Your task to perform on an android device: Add energizer triple a to the cart on ebay.com Image 0: 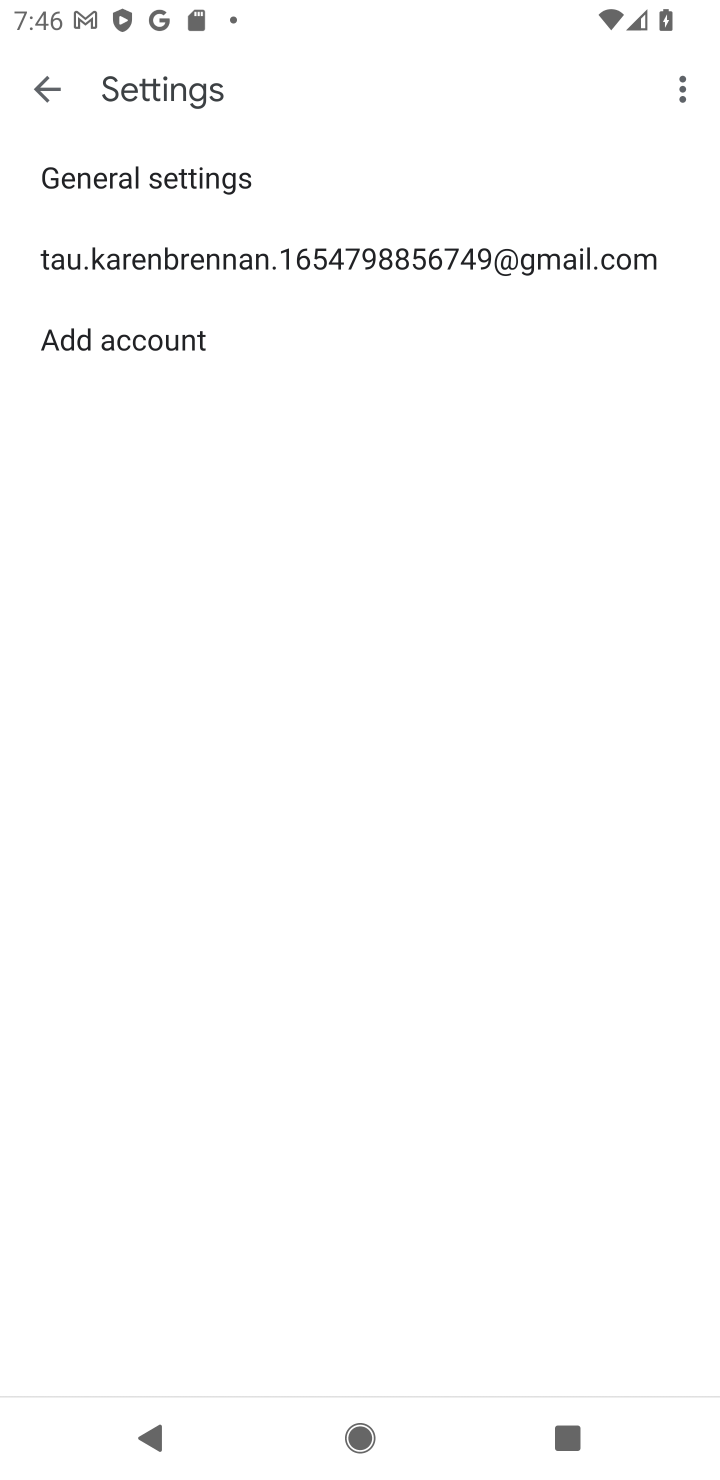
Step 0: press home button
Your task to perform on an android device: Add energizer triple a to the cart on ebay.com Image 1: 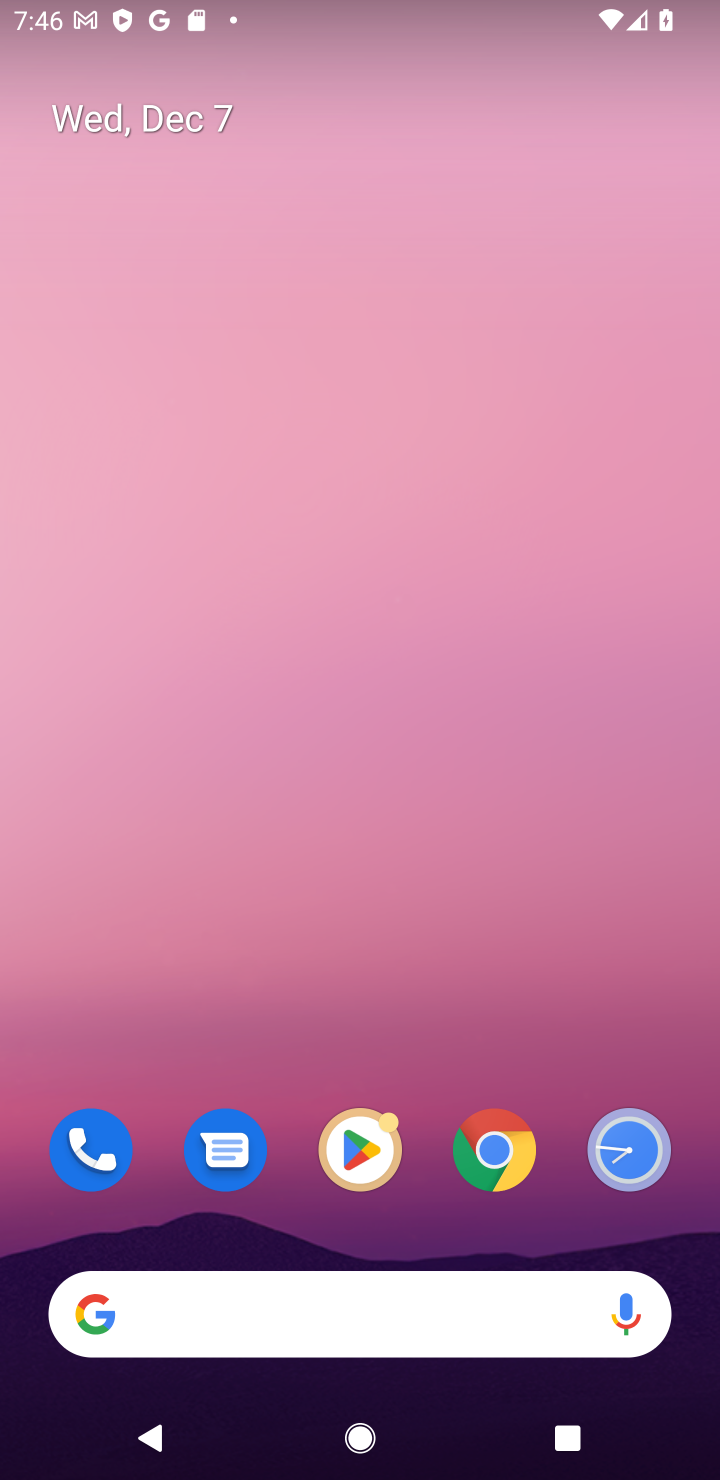
Step 1: click (500, 1169)
Your task to perform on an android device: Add energizer triple a to the cart on ebay.com Image 2: 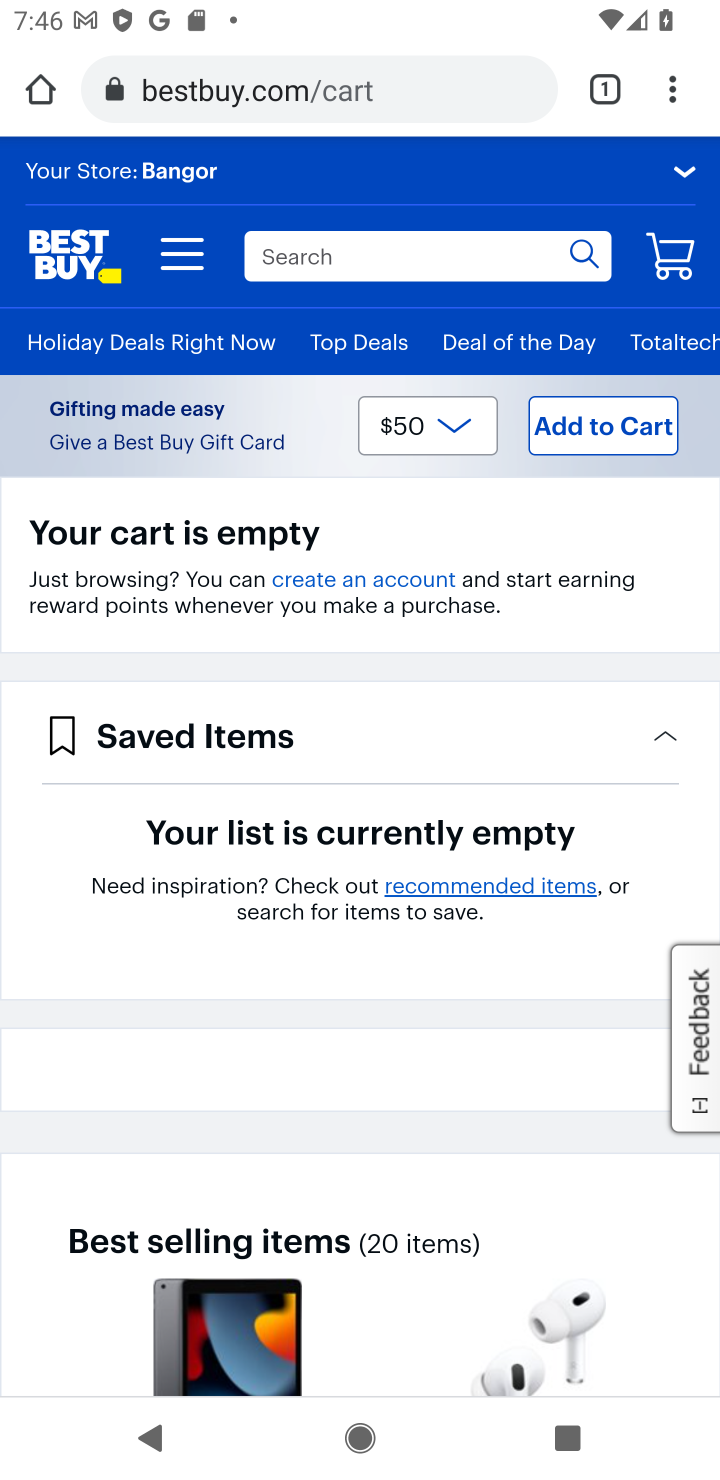
Step 2: click (255, 106)
Your task to perform on an android device: Add energizer triple a to the cart on ebay.com Image 3: 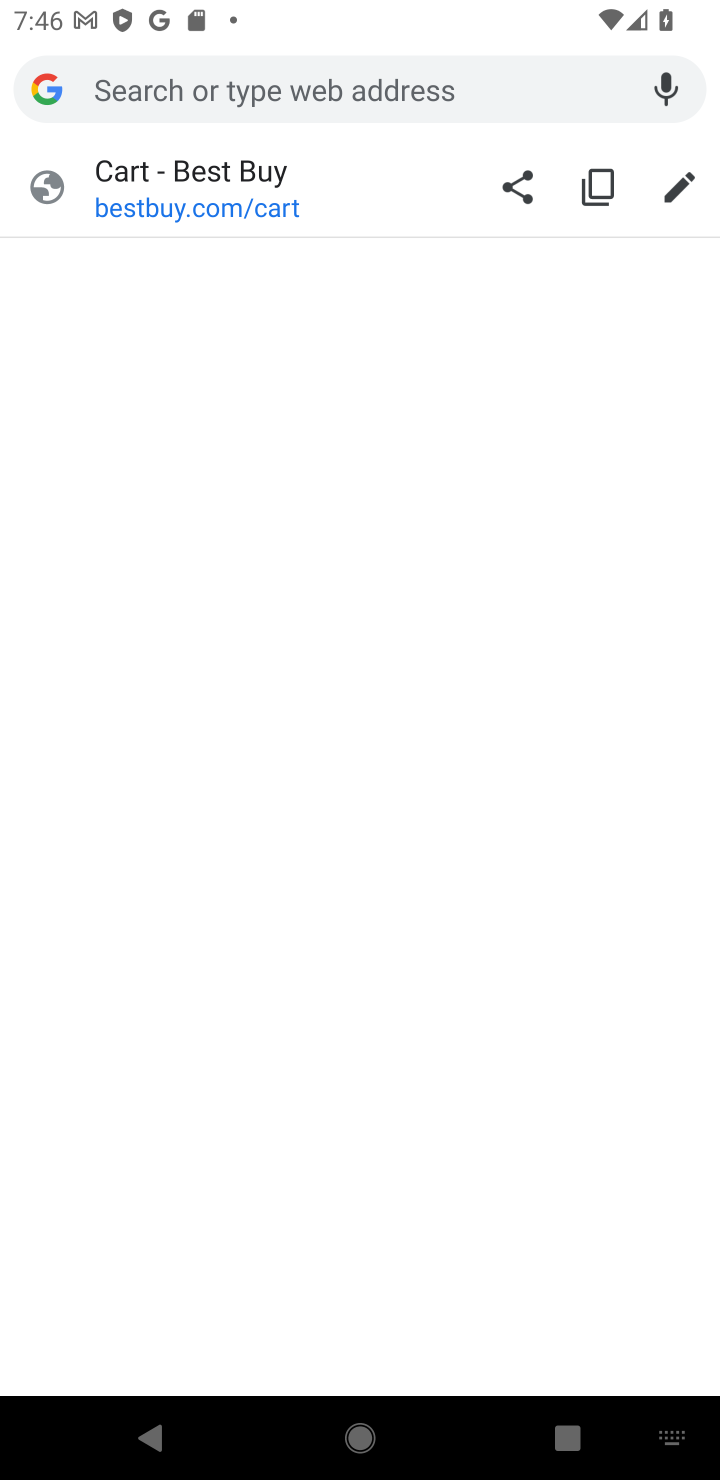
Step 3: type "ebay.com"
Your task to perform on an android device: Add energizer triple a to the cart on ebay.com Image 4: 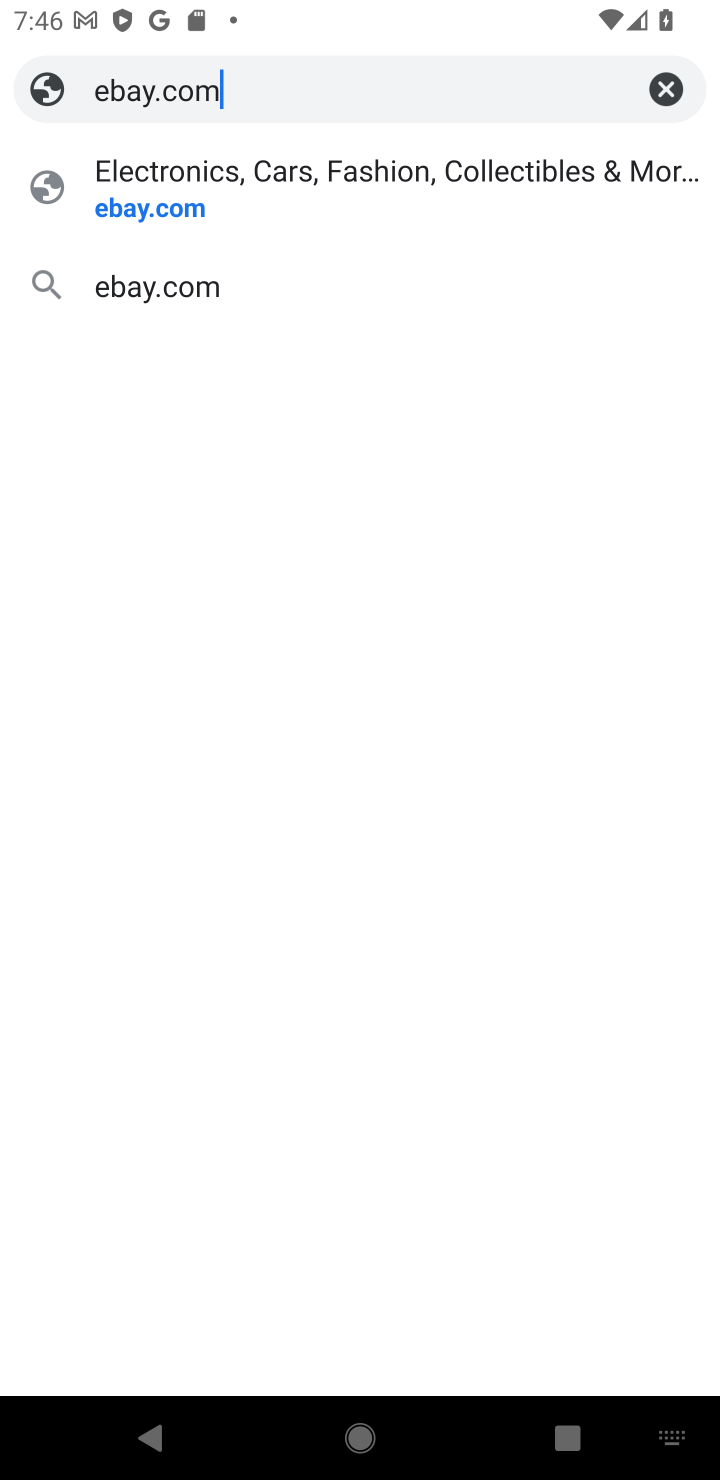
Step 4: press enter
Your task to perform on an android device: Add energizer triple a to the cart on ebay.com Image 5: 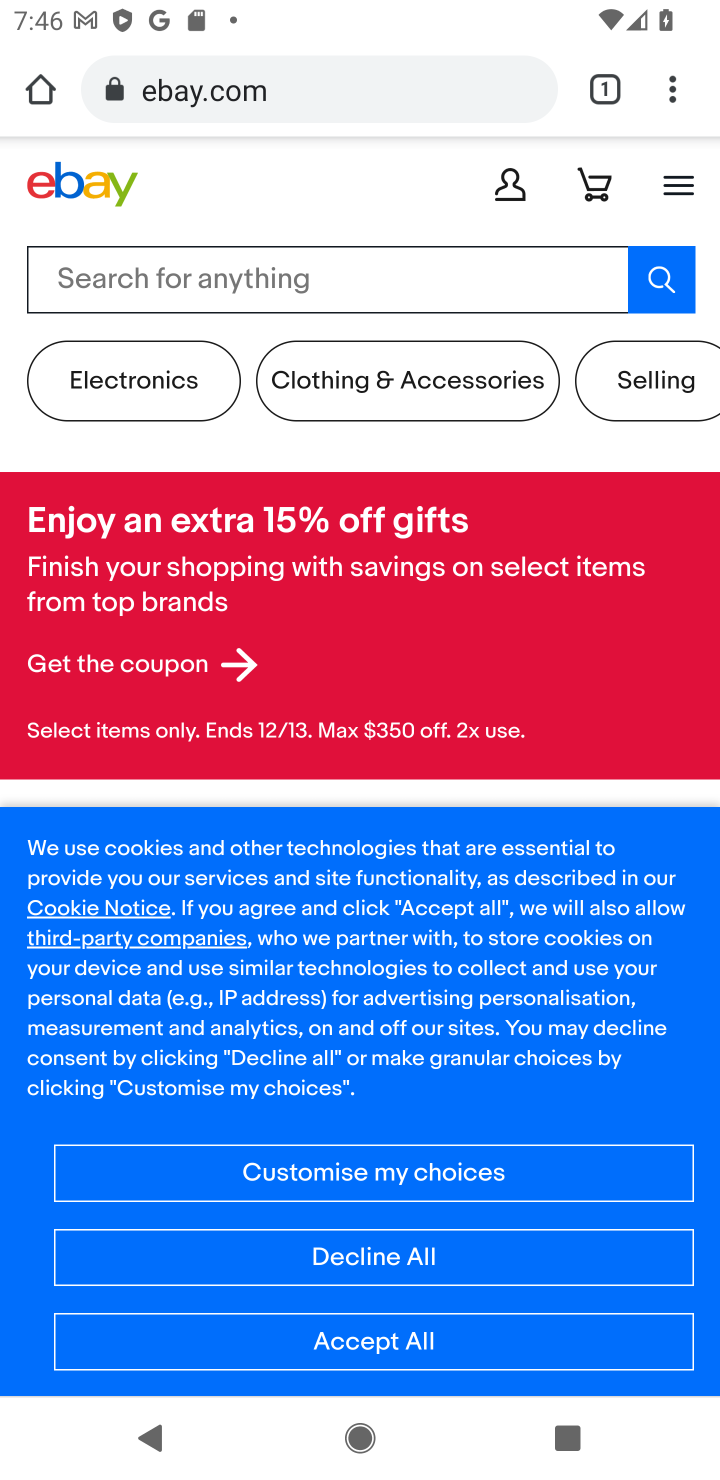
Step 5: click (404, 1348)
Your task to perform on an android device: Add energizer triple a to the cart on ebay.com Image 6: 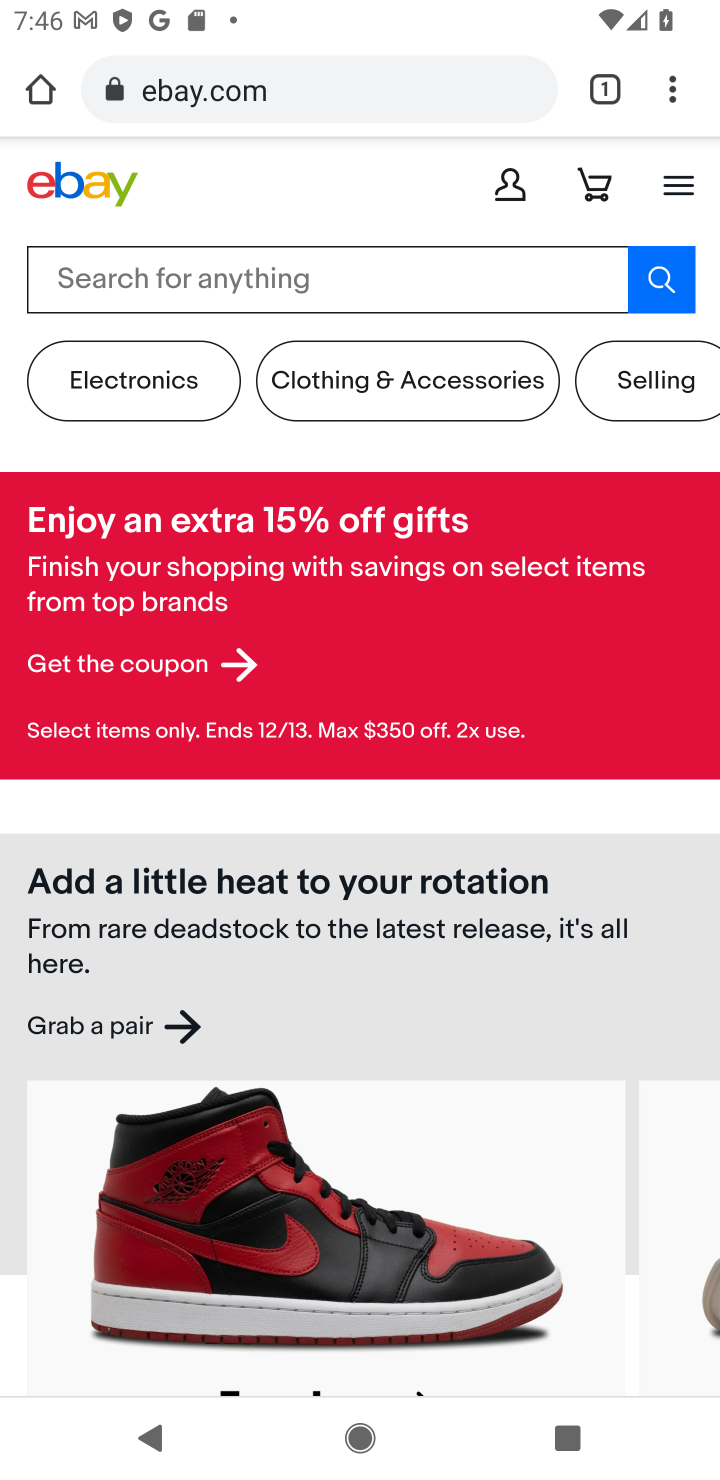
Step 6: click (279, 317)
Your task to perform on an android device: Add energizer triple a to the cart on ebay.com Image 7: 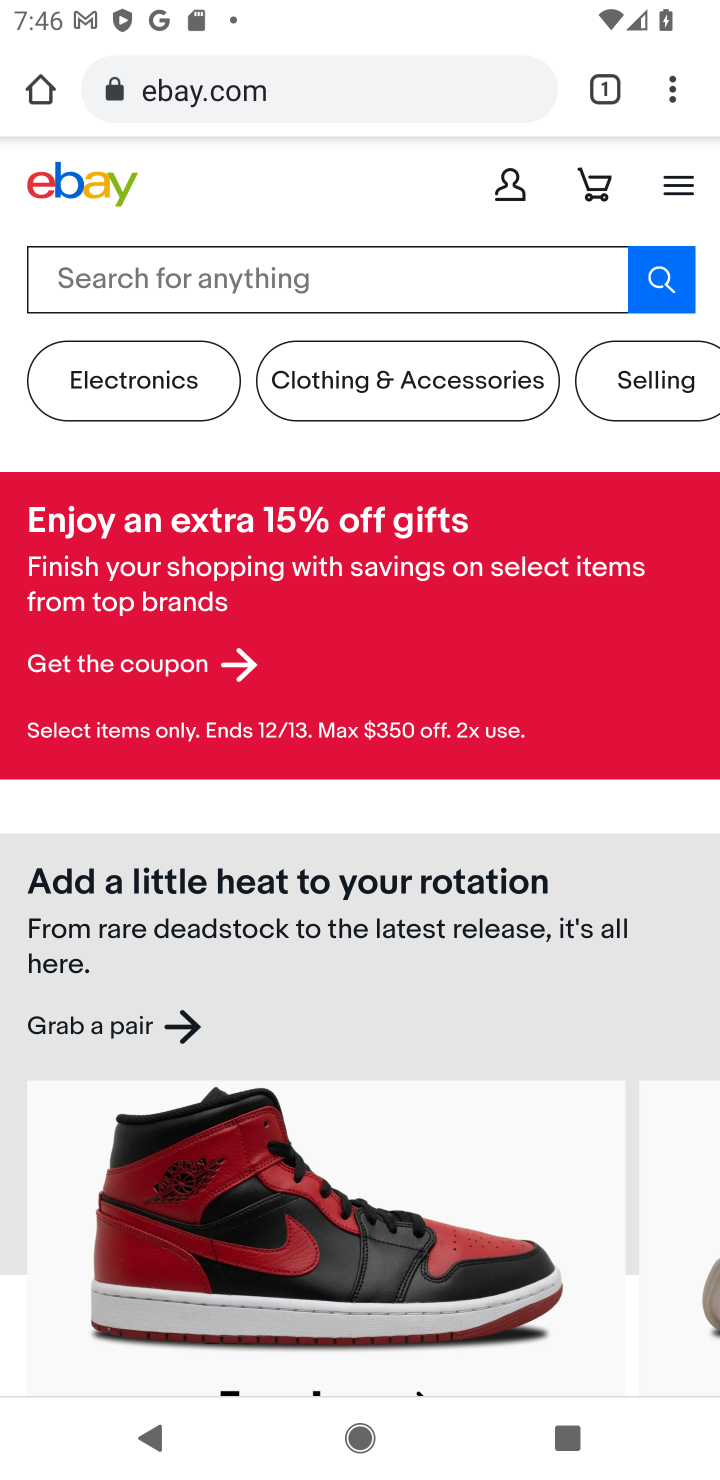
Step 7: click (269, 263)
Your task to perform on an android device: Add energizer triple a to the cart on ebay.com Image 8: 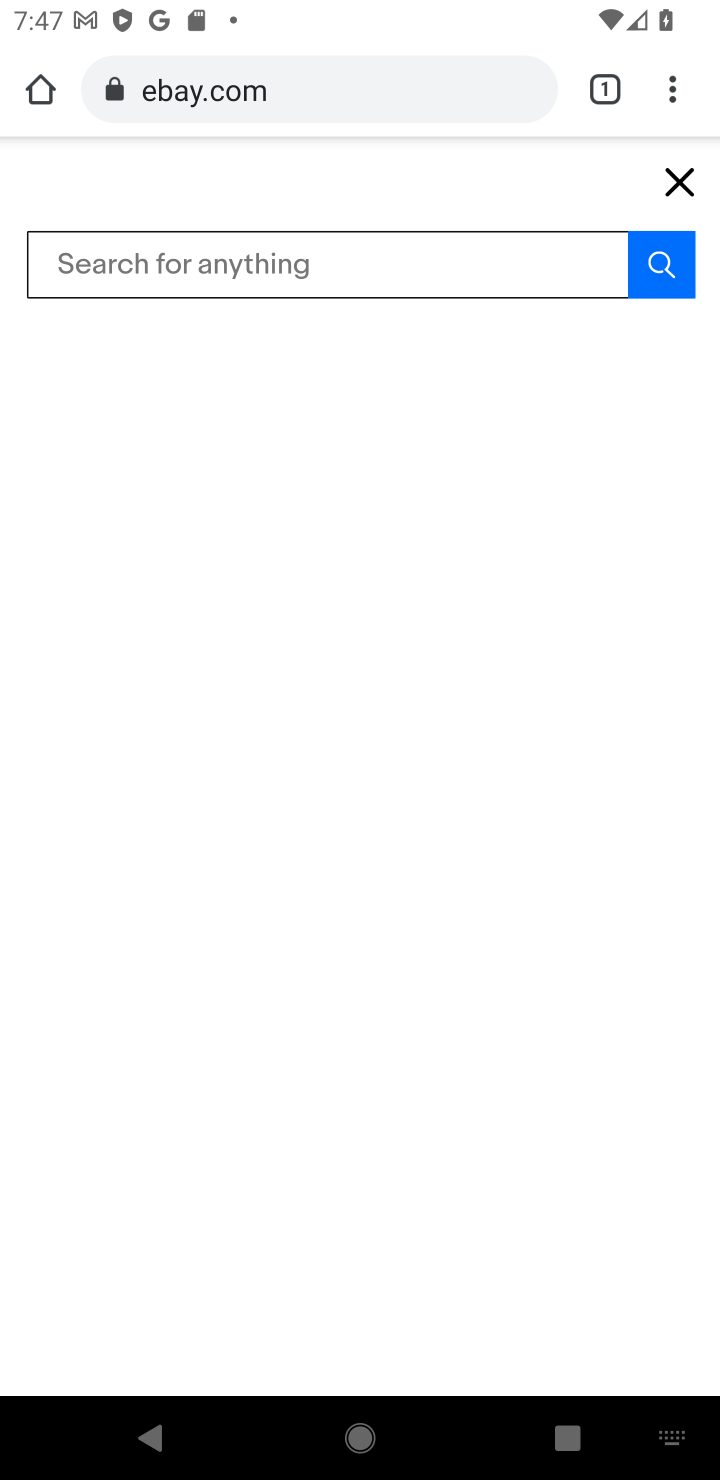
Step 8: type "energizer triple a"
Your task to perform on an android device: Add energizer triple a to the cart on ebay.com Image 9: 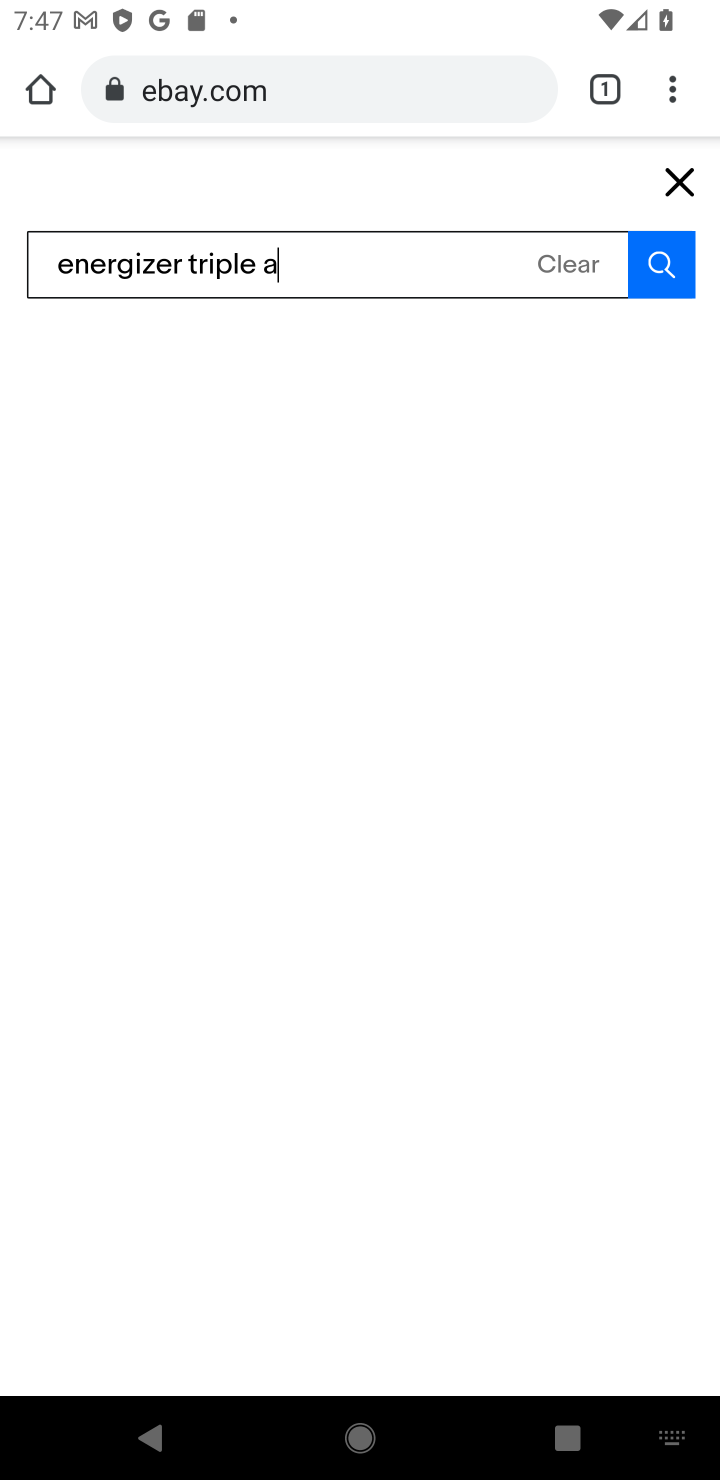
Step 9: press enter
Your task to perform on an android device: Add energizer triple a to the cart on ebay.com Image 10: 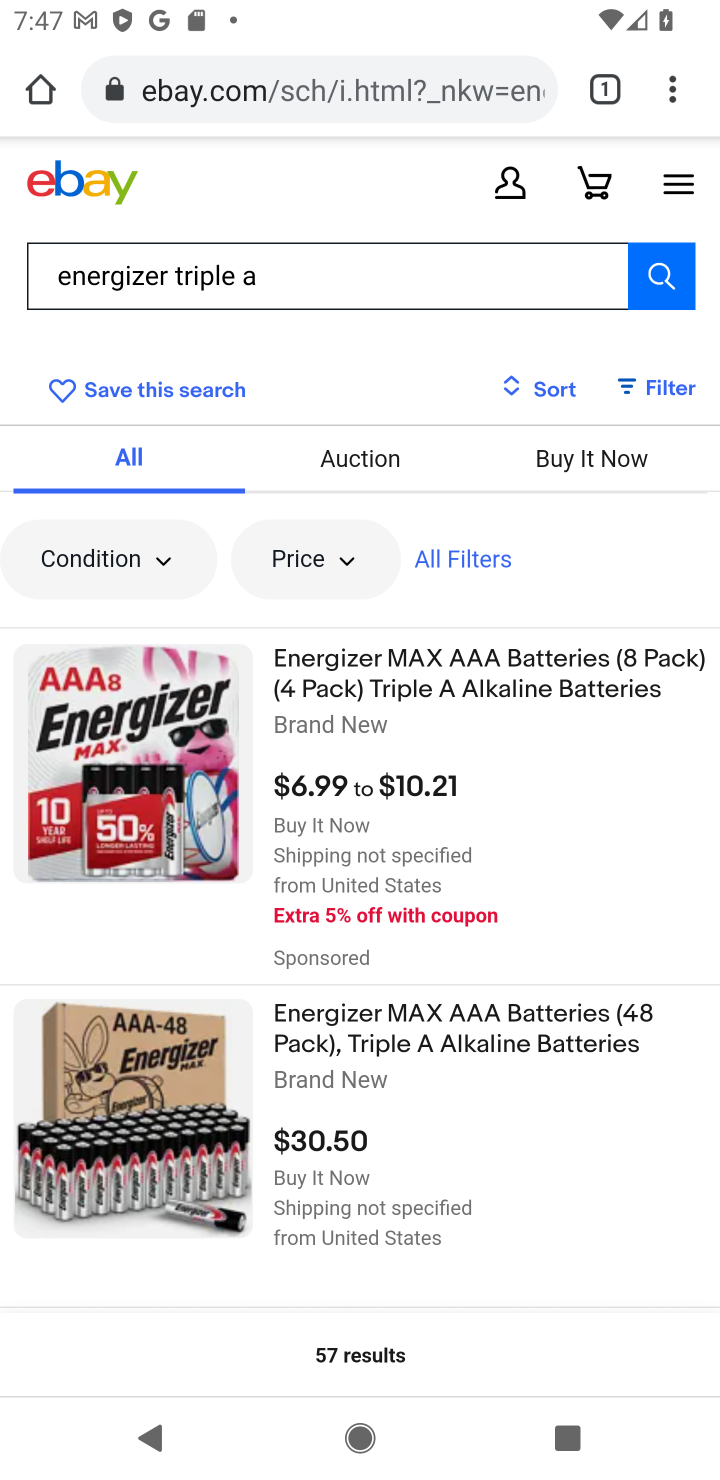
Step 10: click (268, 730)
Your task to perform on an android device: Add energizer triple a to the cart on ebay.com Image 11: 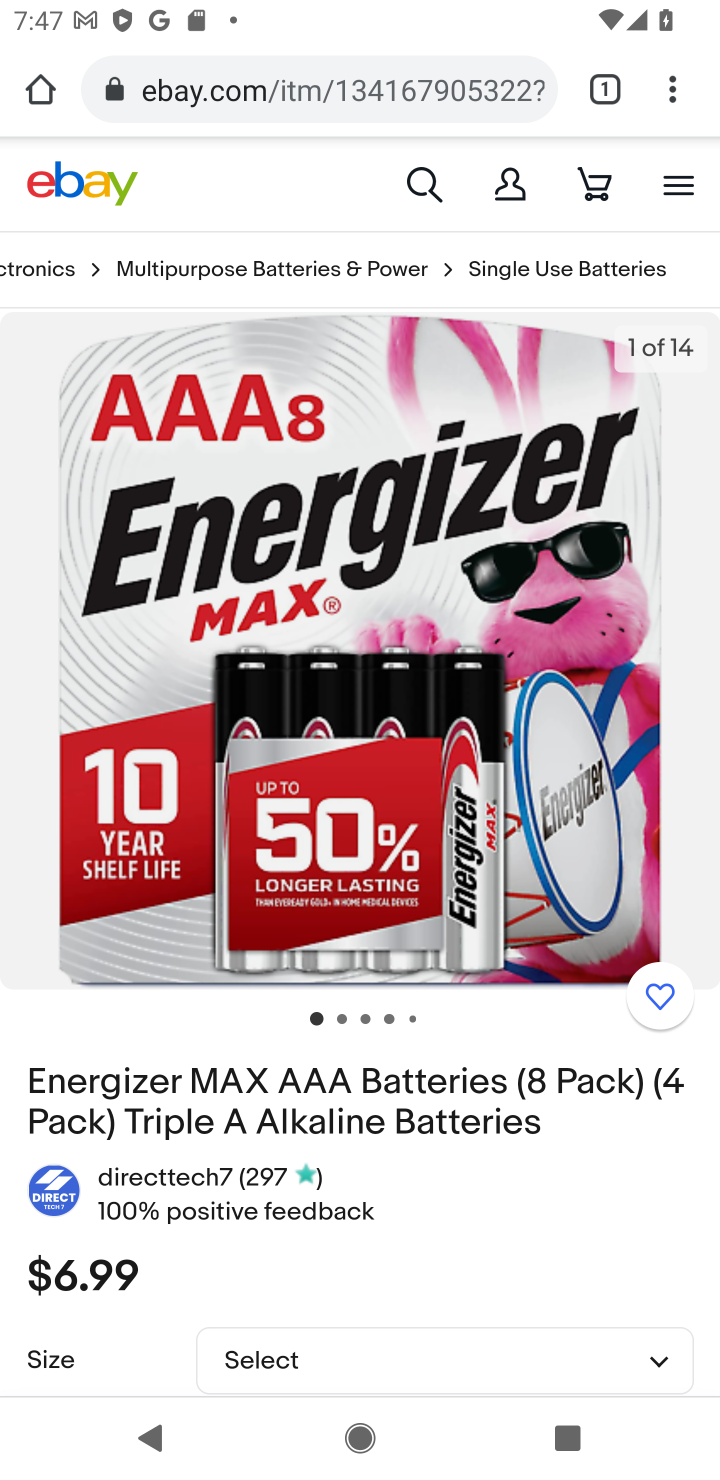
Step 11: drag from (418, 1112) to (482, 625)
Your task to perform on an android device: Add energizer triple a to the cart on ebay.com Image 12: 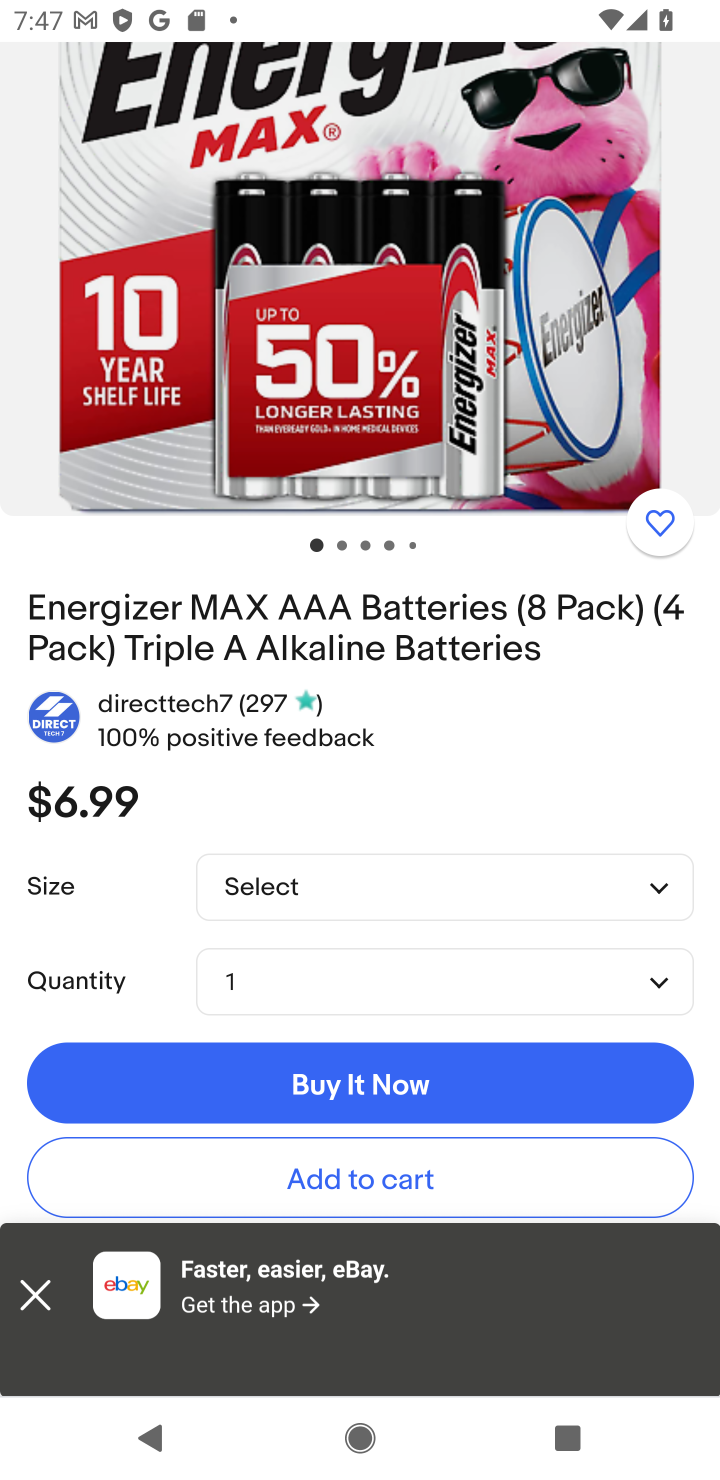
Step 12: click (446, 872)
Your task to perform on an android device: Add energizer triple a to the cart on ebay.com Image 13: 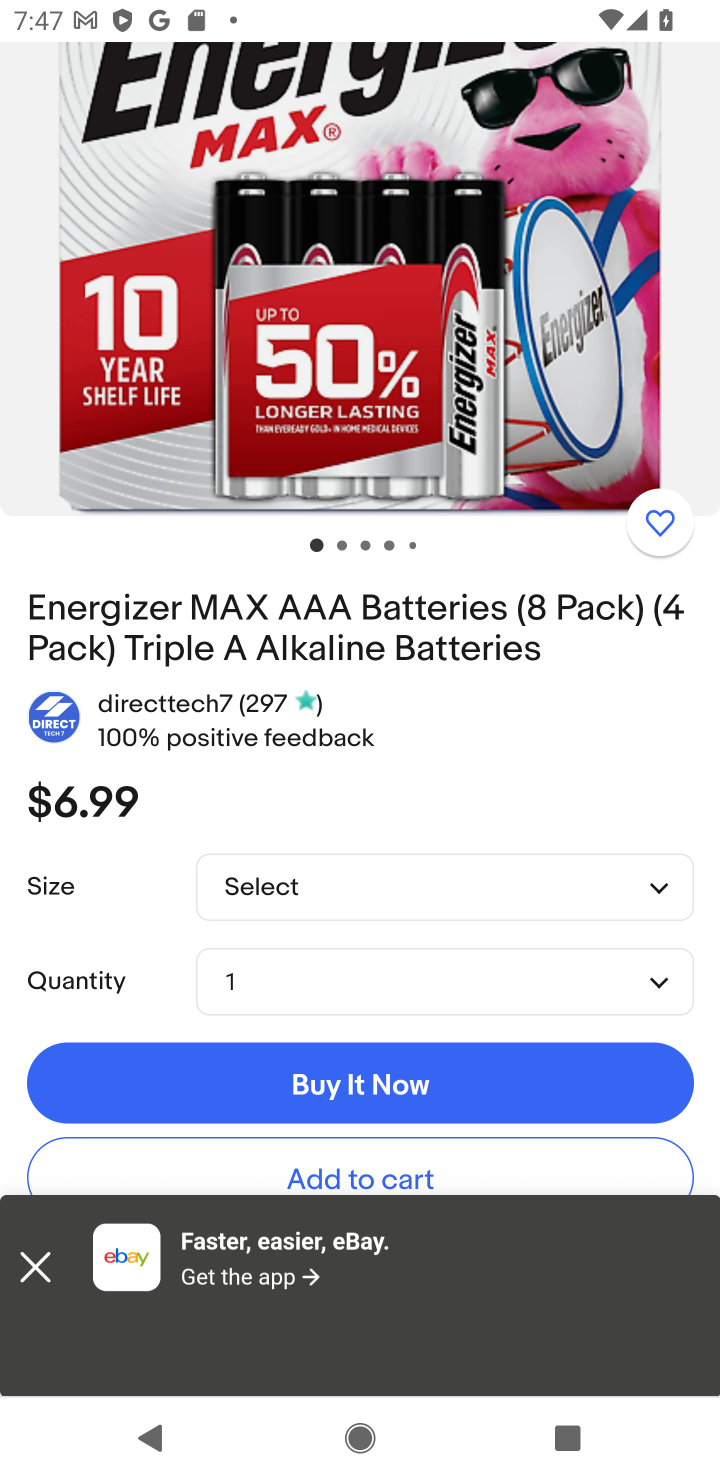
Step 13: click (431, 890)
Your task to perform on an android device: Add energizer triple a to the cart on ebay.com Image 14: 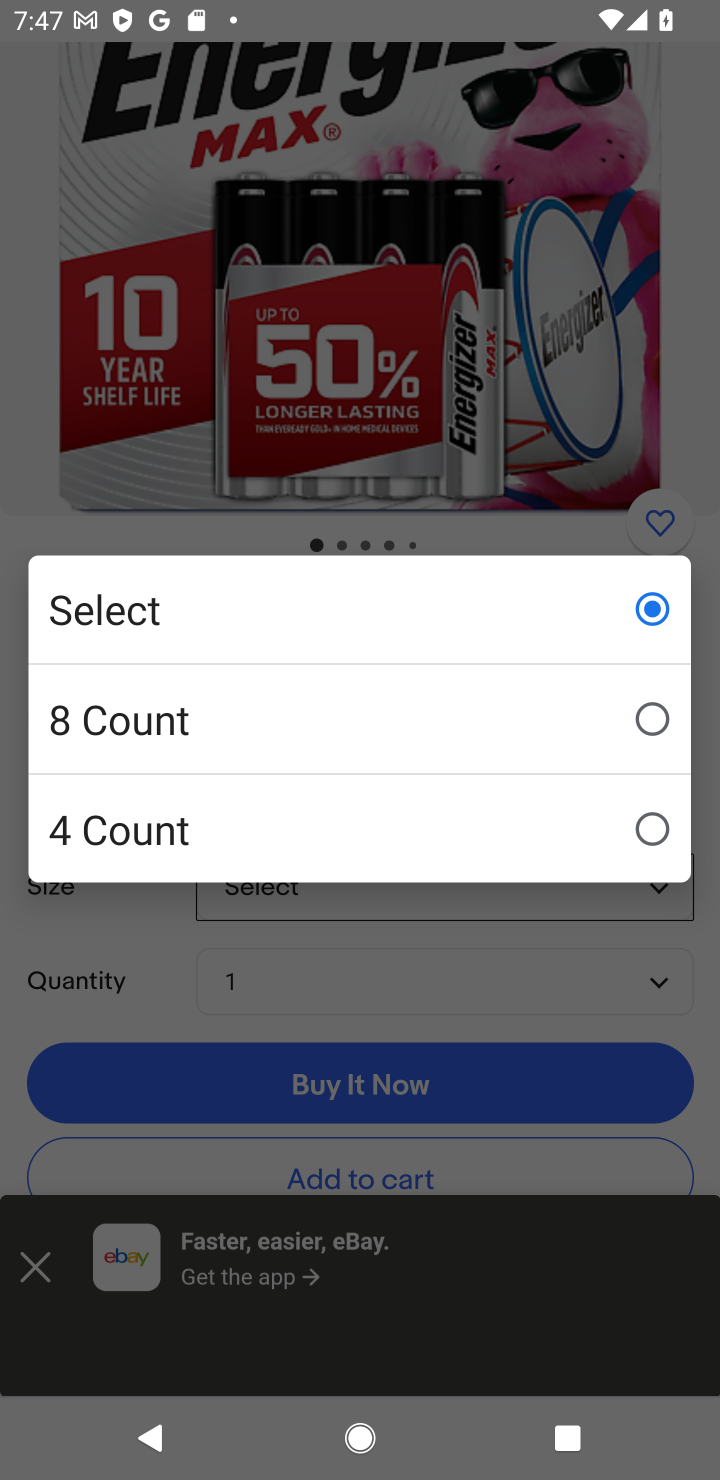
Step 14: click (333, 716)
Your task to perform on an android device: Add energizer triple a to the cart on ebay.com Image 15: 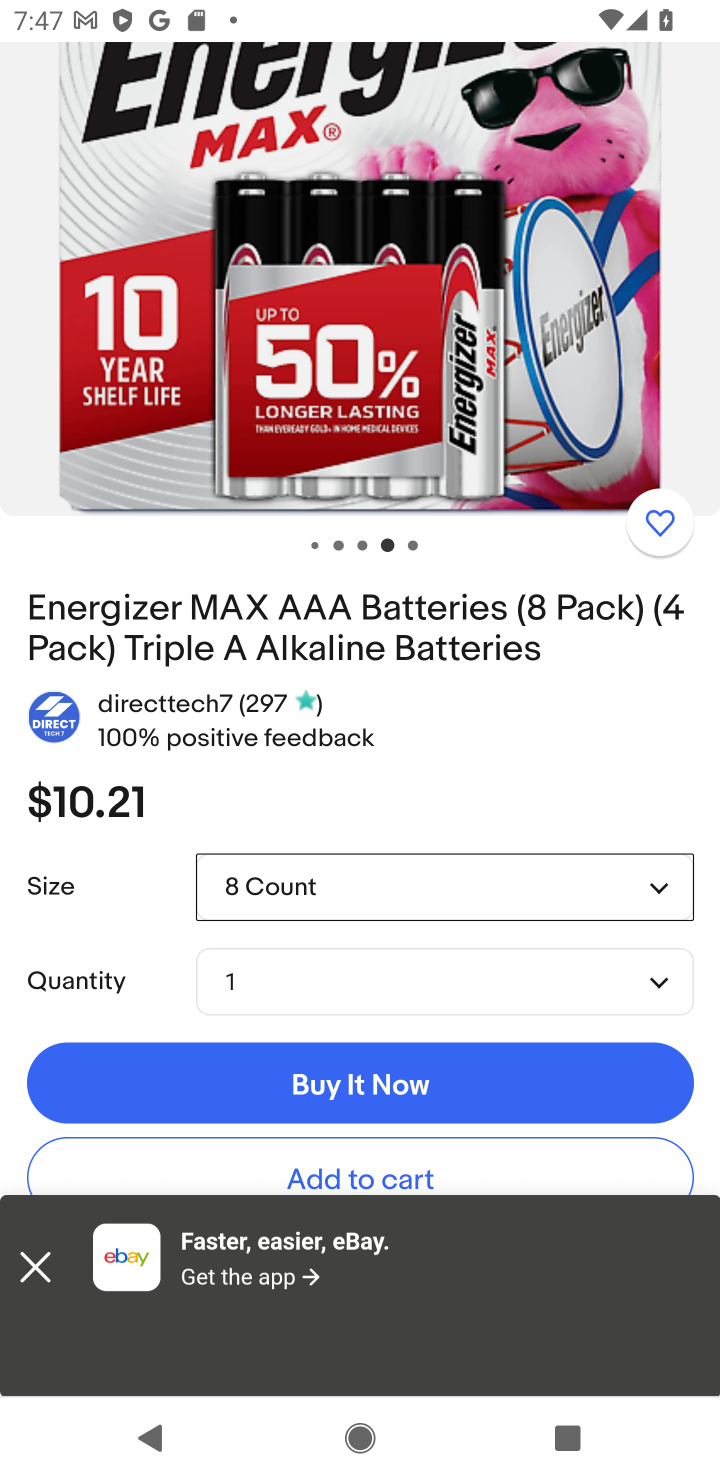
Step 15: click (368, 1171)
Your task to perform on an android device: Add energizer triple a to the cart on ebay.com Image 16: 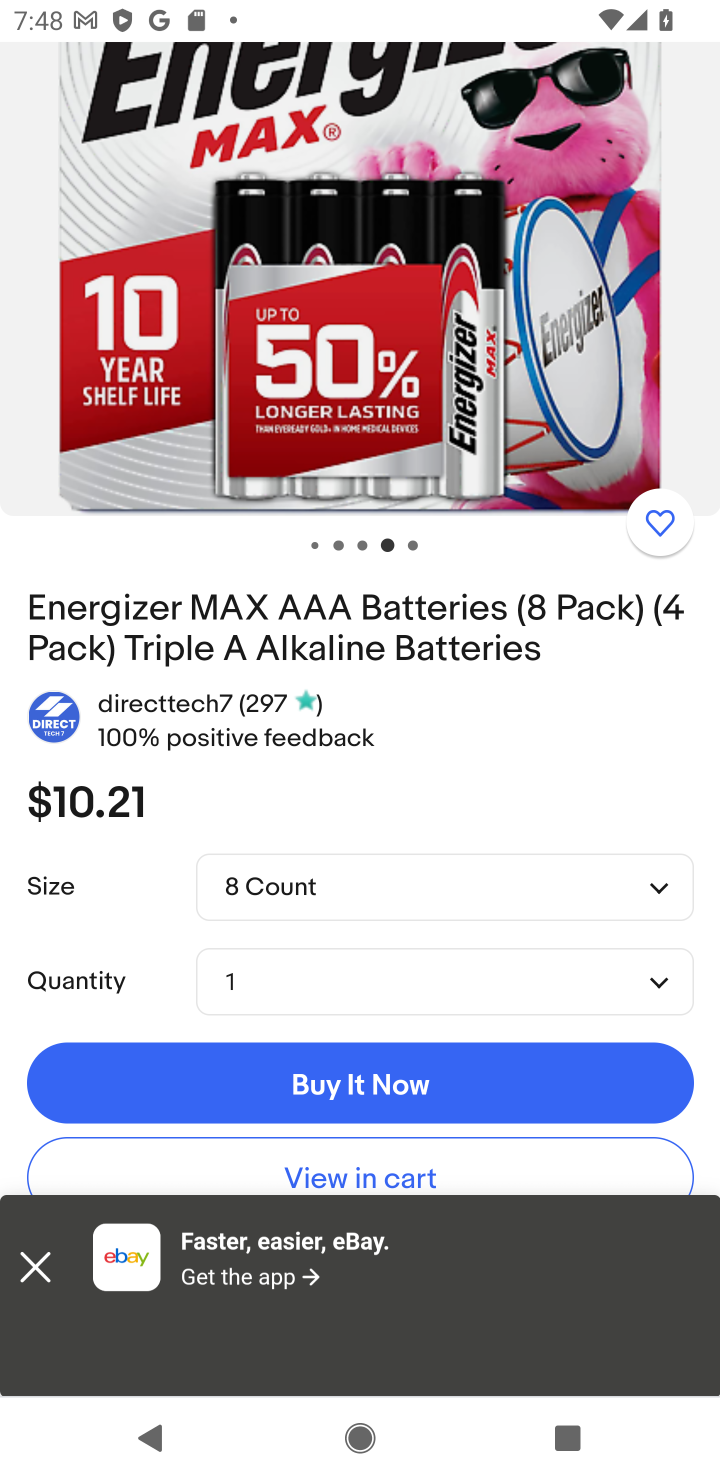
Step 16: click (368, 1169)
Your task to perform on an android device: Add energizer triple a to the cart on ebay.com Image 17: 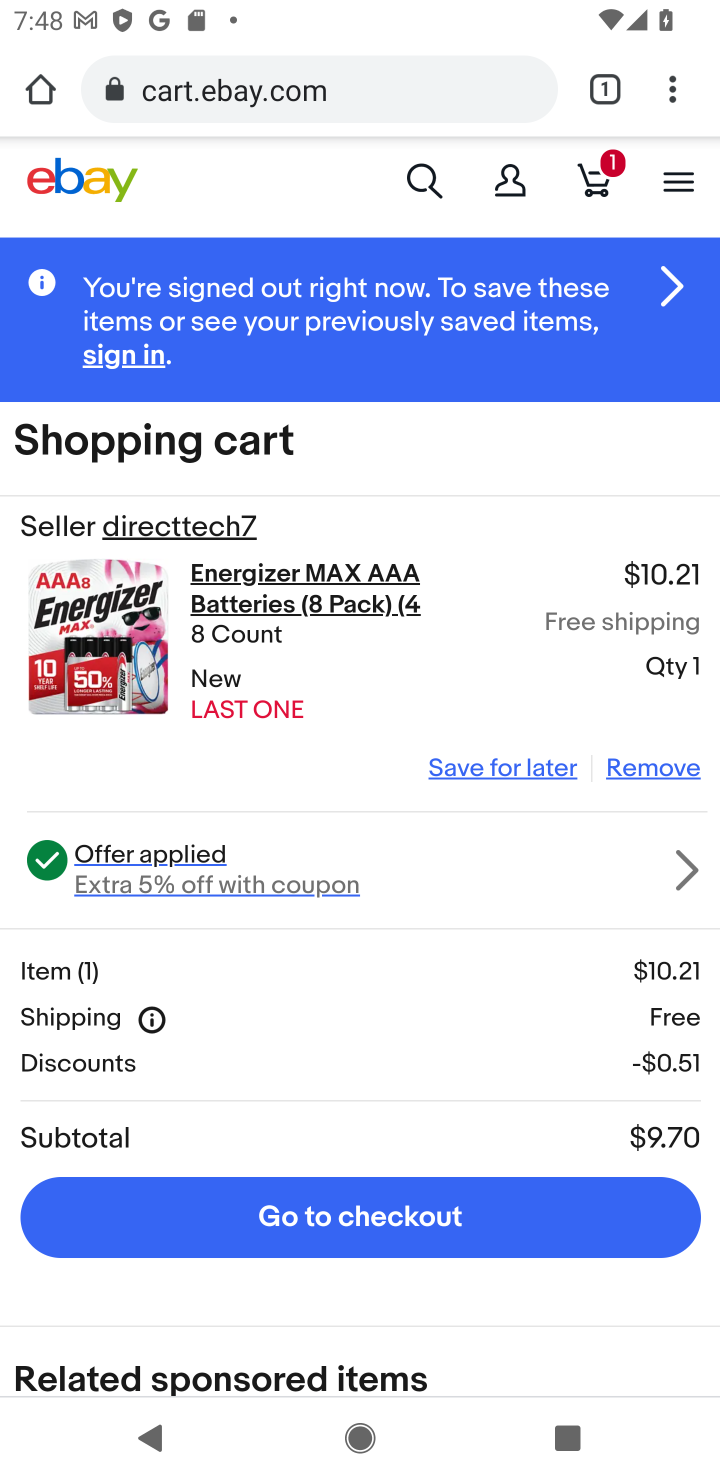
Step 17: task complete